Your task to perform on an android device: Open Google Image 0: 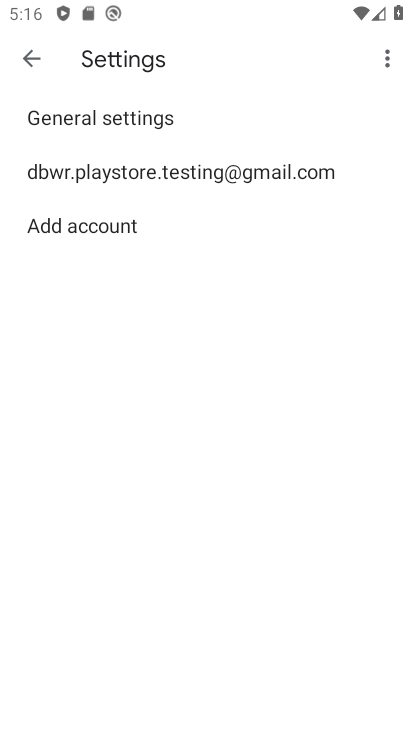
Step 0: press home button
Your task to perform on an android device: Open Google Image 1: 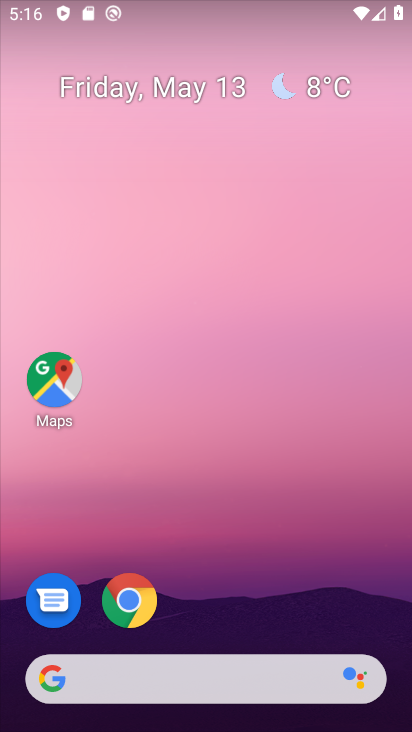
Step 1: drag from (270, 633) to (384, 103)
Your task to perform on an android device: Open Google Image 2: 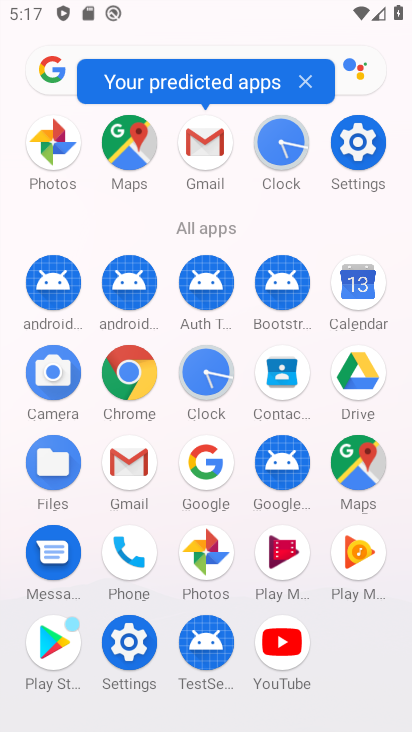
Step 2: click (206, 478)
Your task to perform on an android device: Open Google Image 3: 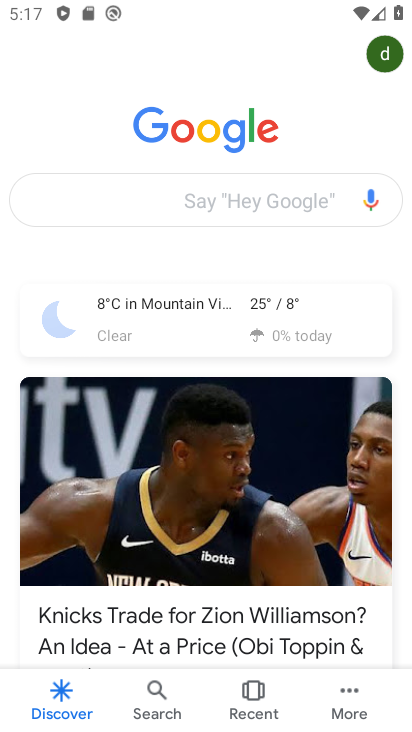
Step 3: task complete